Your task to perform on an android device: open wifi settings Image 0: 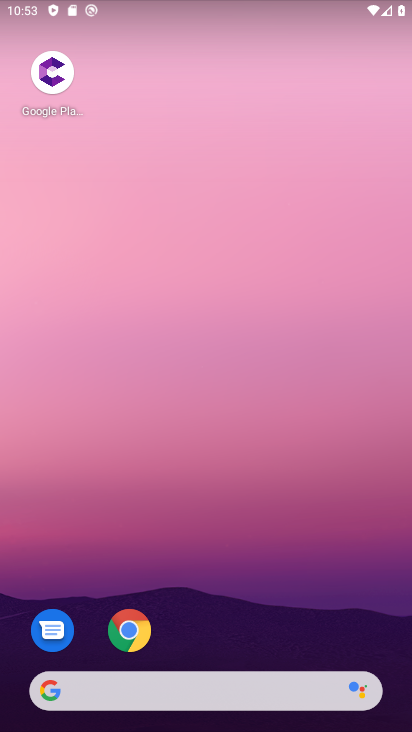
Step 0: drag from (375, 614) to (308, 192)
Your task to perform on an android device: open wifi settings Image 1: 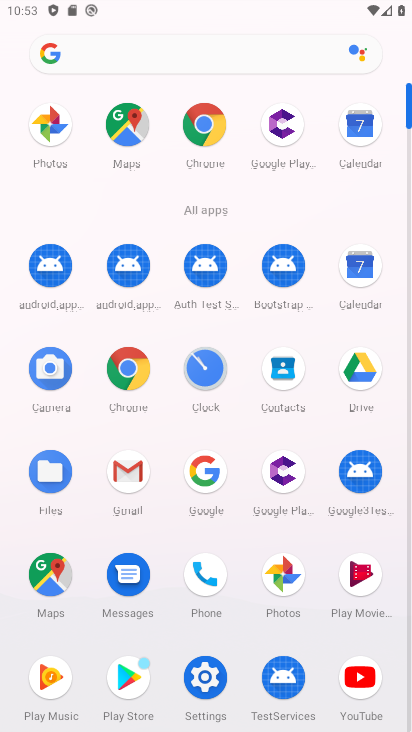
Step 1: click (204, 675)
Your task to perform on an android device: open wifi settings Image 2: 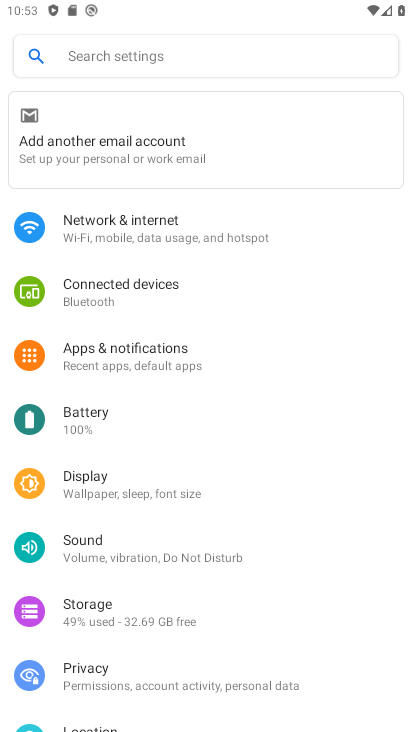
Step 2: click (148, 220)
Your task to perform on an android device: open wifi settings Image 3: 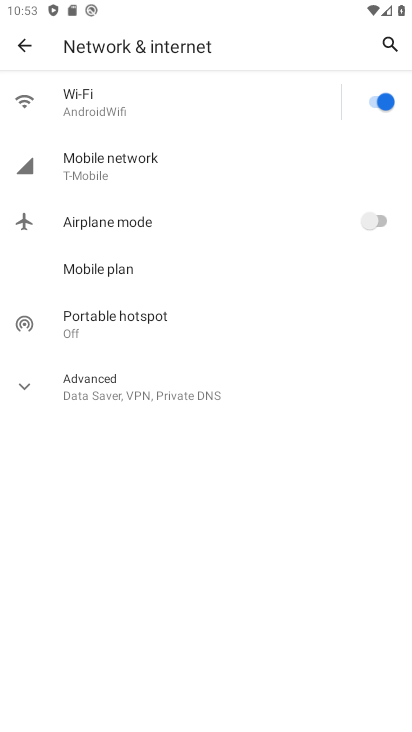
Step 3: click (87, 107)
Your task to perform on an android device: open wifi settings Image 4: 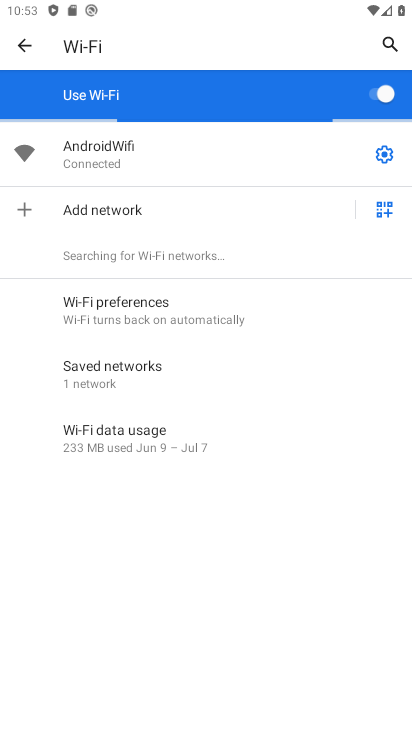
Step 4: task complete